Your task to perform on an android device: Go to settings Image 0: 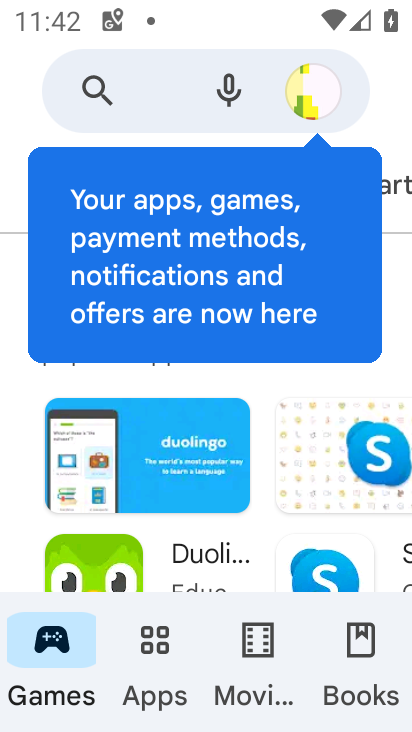
Step 0: press home button
Your task to perform on an android device: Go to settings Image 1: 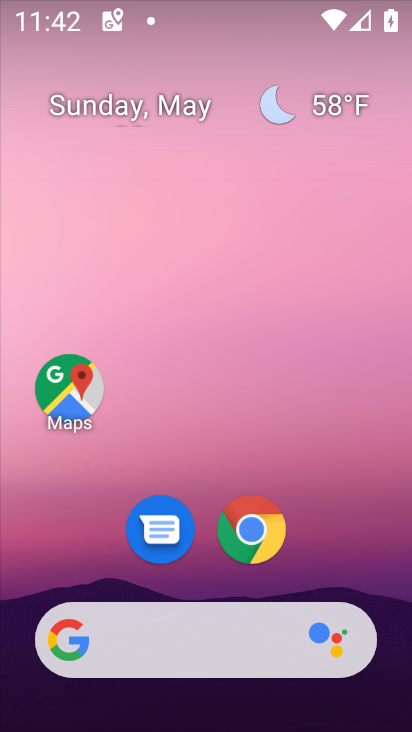
Step 1: drag from (184, 618) to (208, 26)
Your task to perform on an android device: Go to settings Image 2: 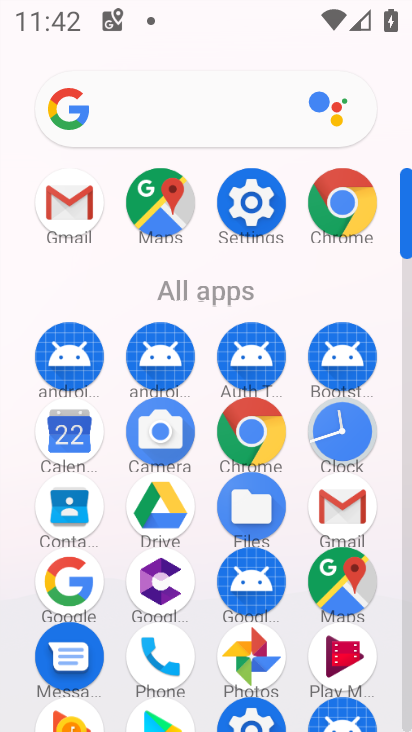
Step 2: click (258, 211)
Your task to perform on an android device: Go to settings Image 3: 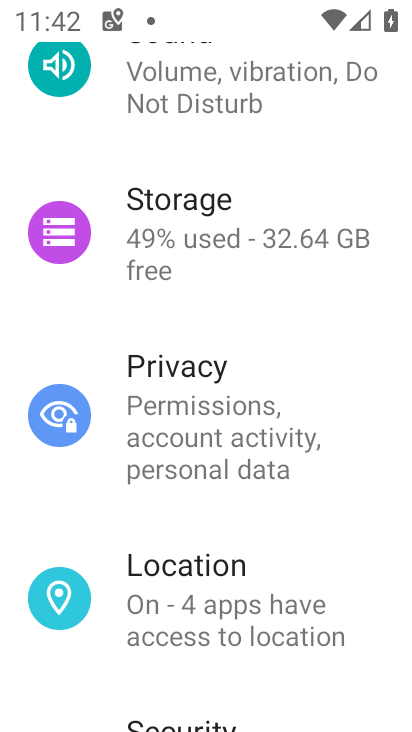
Step 3: task complete